Your task to perform on an android device: Go to wifi settings Image 0: 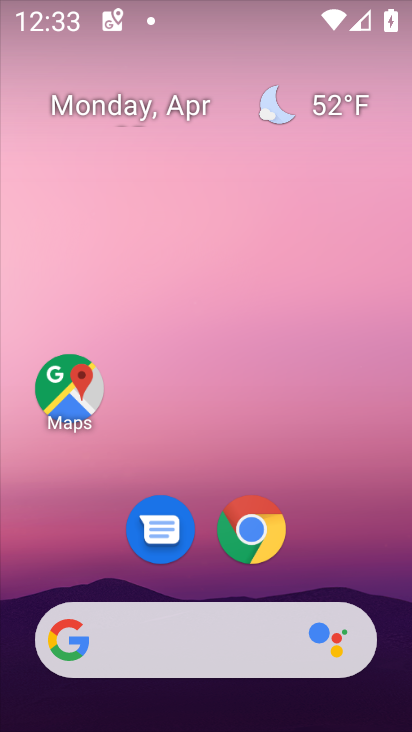
Step 0: drag from (389, 595) to (339, 327)
Your task to perform on an android device: Go to wifi settings Image 1: 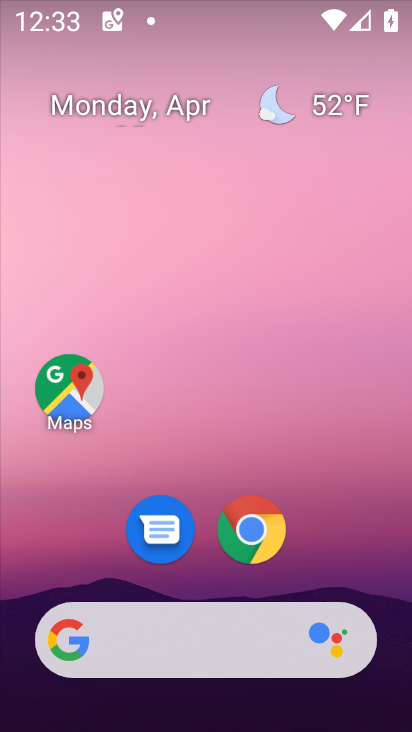
Step 1: drag from (375, 472) to (304, 150)
Your task to perform on an android device: Go to wifi settings Image 2: 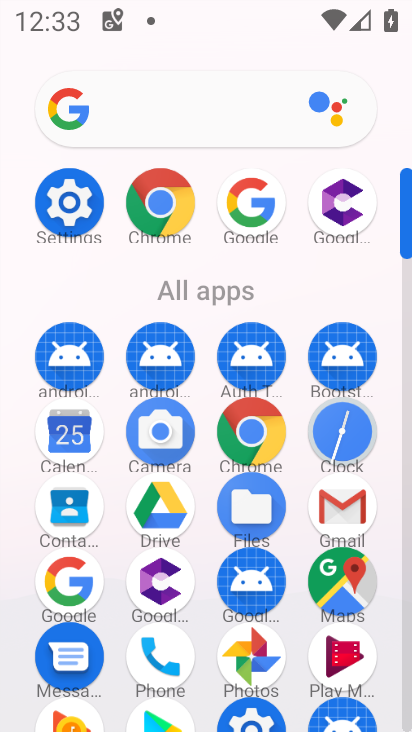
Step 2: click (70, 201)
Your task to perform on an android device: Go to wifi settings Image 3: 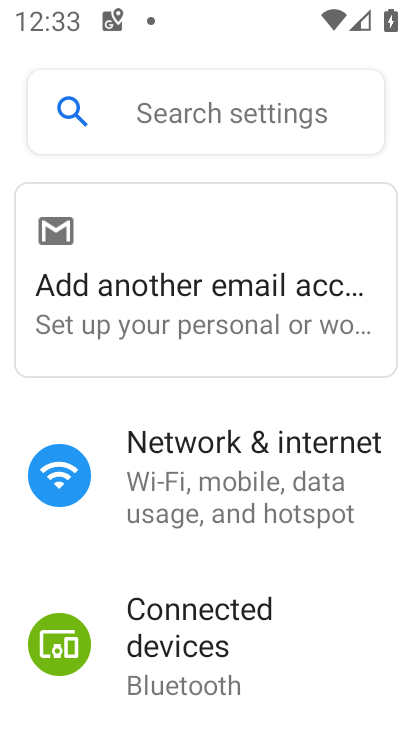
Step 3: click (125, 464)
Your task to perform on an android device: Go to wifi settings Image 4: 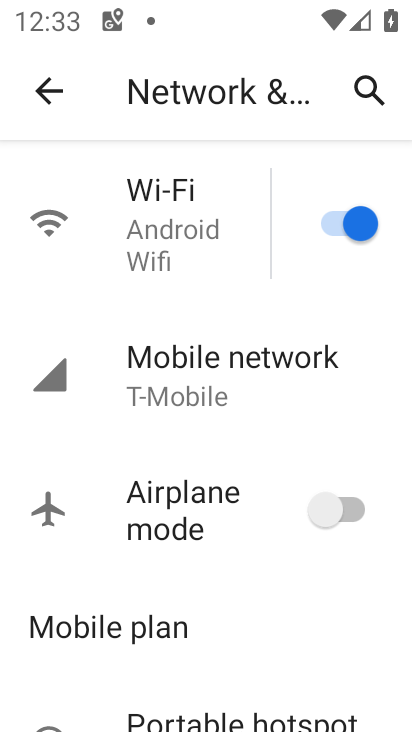
Step 4: click (176, 236)
Your task to perform on an android device: Go to wifi settings Image 5: 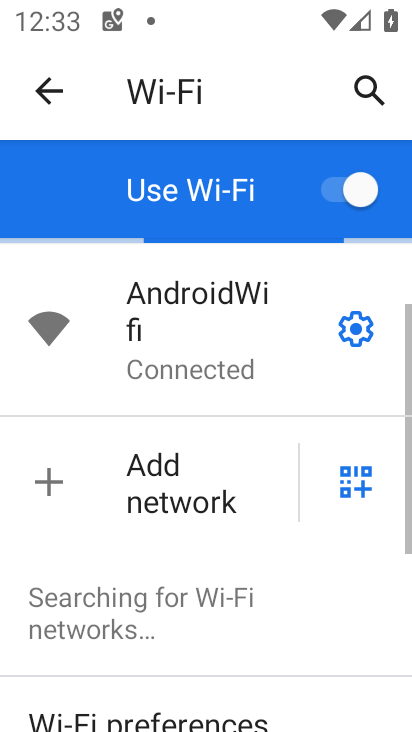
Step 5: click (354, 316)
Your task to perform on an android device: Go to wifi settings Image 6: 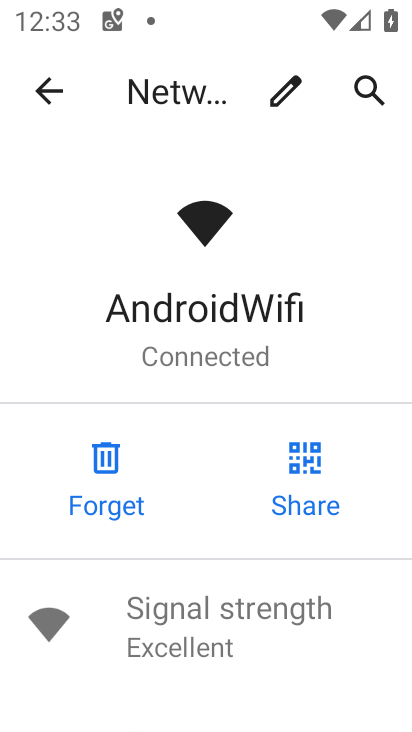
Step 6: task complete